Your task to perform on an android device: Clear the shopping cart on ebay.com. Search for "usb-a" on ebay.com, select the first entry, and add it to the cart. Image 0: 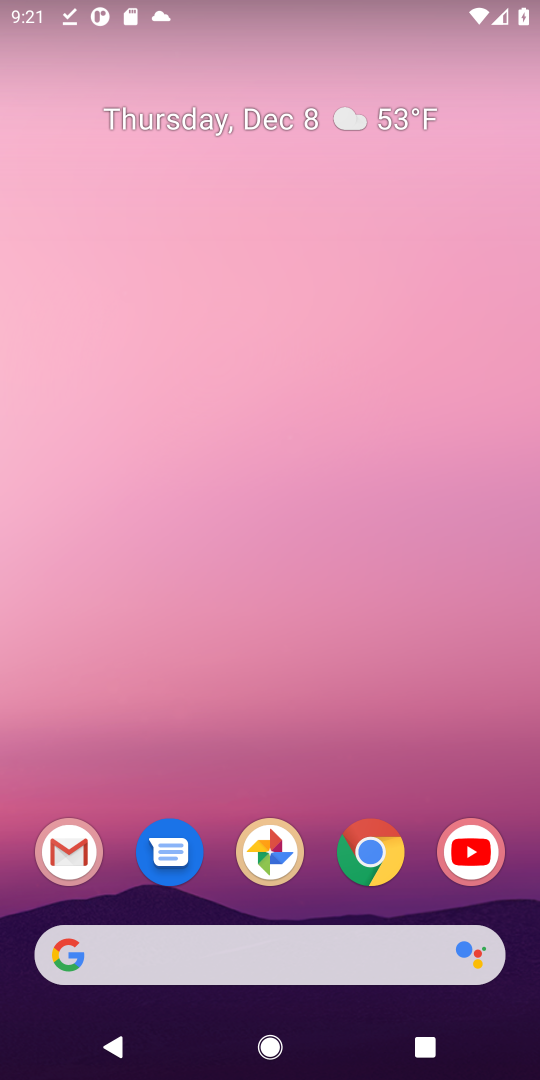
Step 0: click (269, 955)
Your task to perform on an android device: Clear the shopping cart on ebay.com. Search for "usb-a" on ebay.com, select the first entry, and add it to the cart. Image 1: 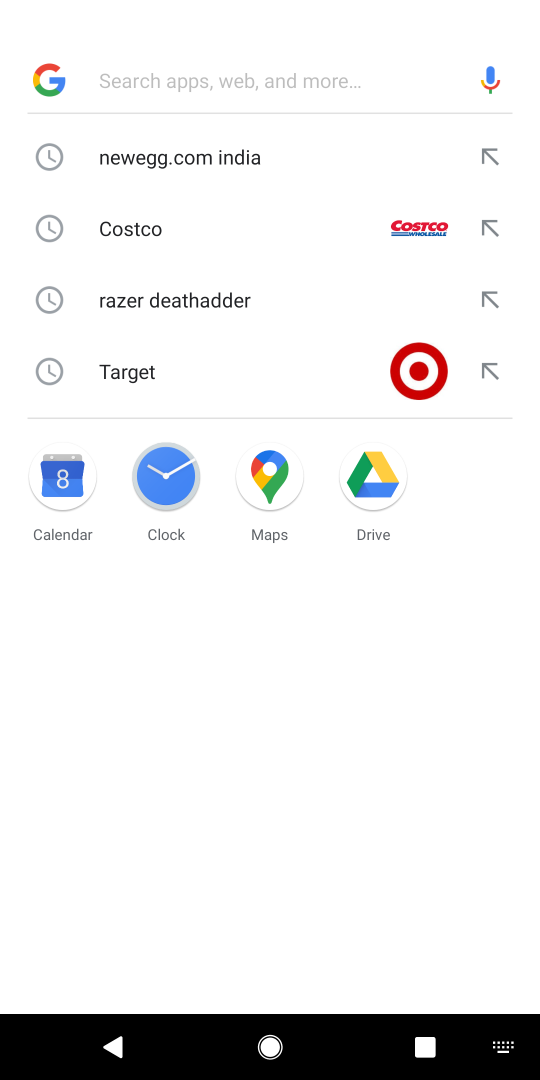
Step 1: type "ebay.com"
Your task to perform on an android device: Clear the shopping cart on ebay.com. Search for "usb-a" on ebay.com, select the first entry, and add it to the cart. Image 2: 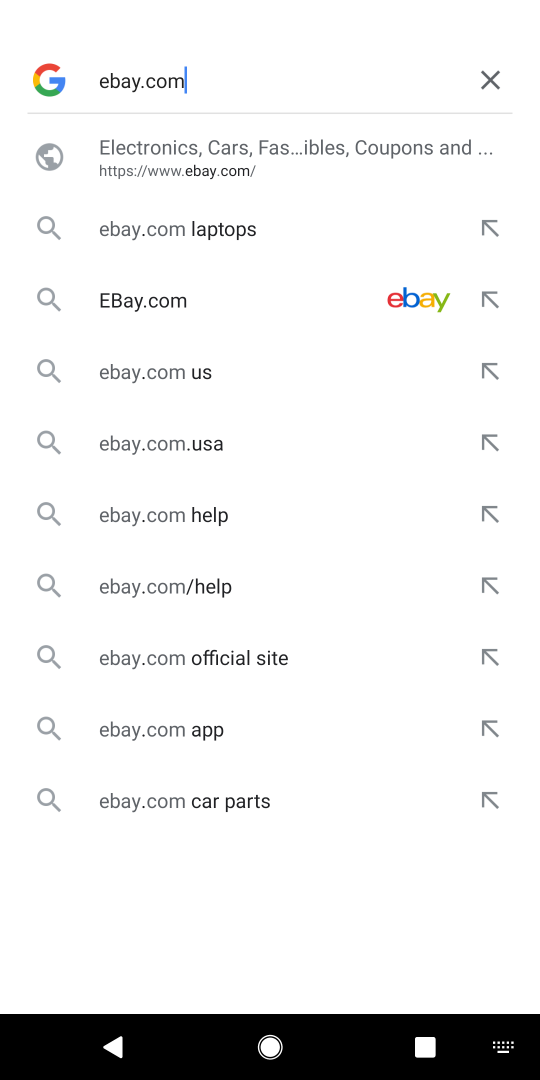
Step 2: click (277, 175)
Your task to perform on an android device: Clear the shopping cart on ebay.com. Search for "usb-a" on ebay.com, select the first entry, and add it to the cart. Image 3: 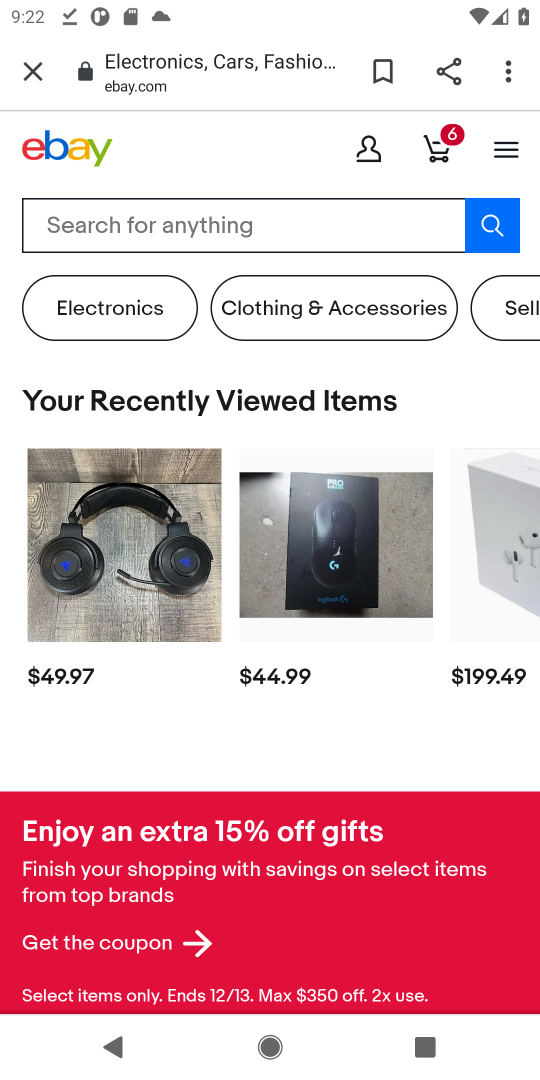
Step 3: click (220, 230)
Your task to perform on an android device: Clear the shopping cart on ebay.com. Search for "usb-a" on ebay.com, select the first entry, and add it to the cart. Image 4: 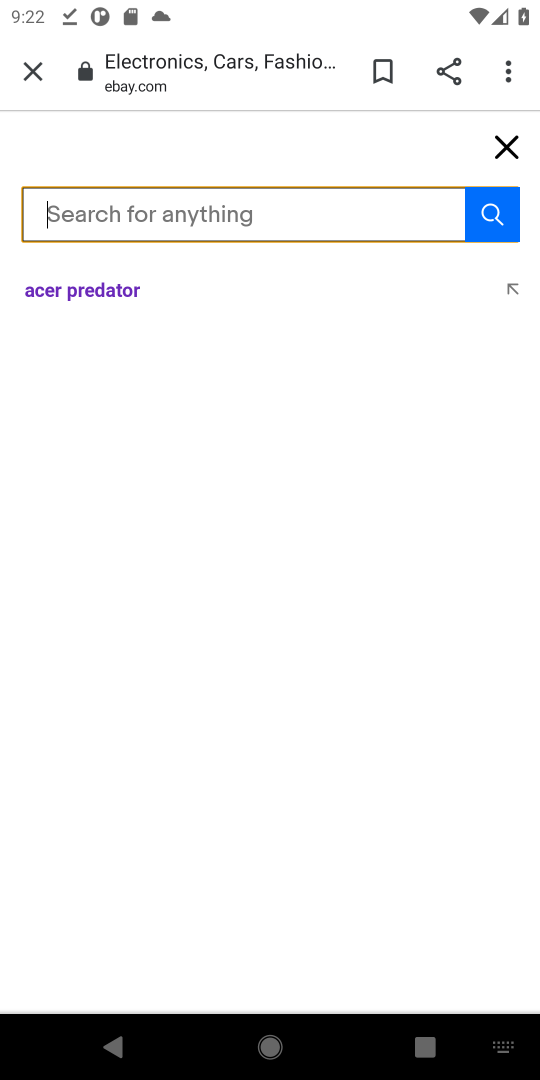
Step 4: type "usb-a"
Your task to perform on an android device: Clear the shopping cart on ebay.com. Search for "usb-a" on ebay.com, select the first entry, and add it to the cart. Image 5: 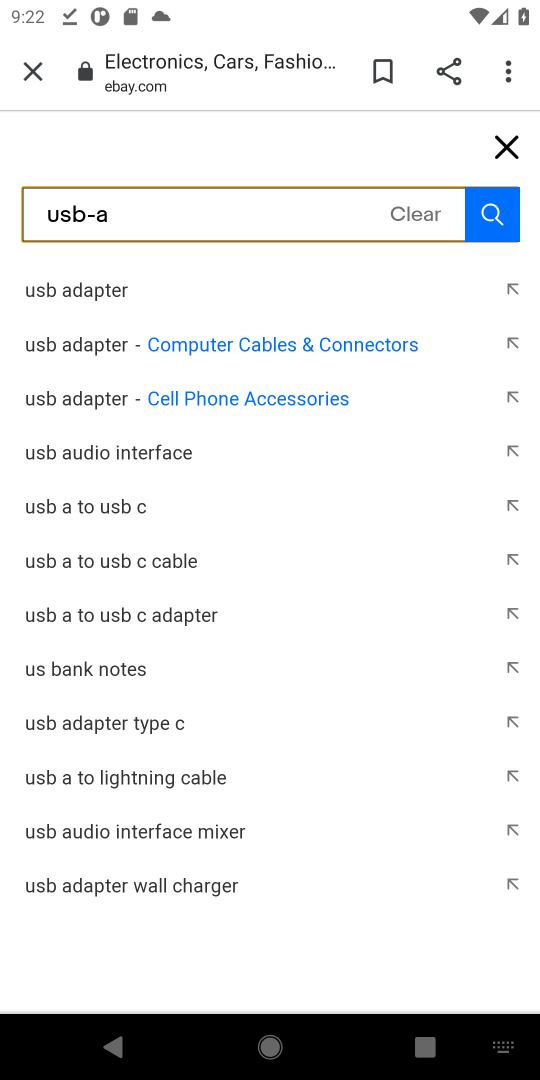
Step 5: click (487, 230)
Your task to perform on an android device: Clear the shopping cart on ebay.com. Search for "usb-a" on ebay.com, select the first entry, and add it to the cart. Image 6: 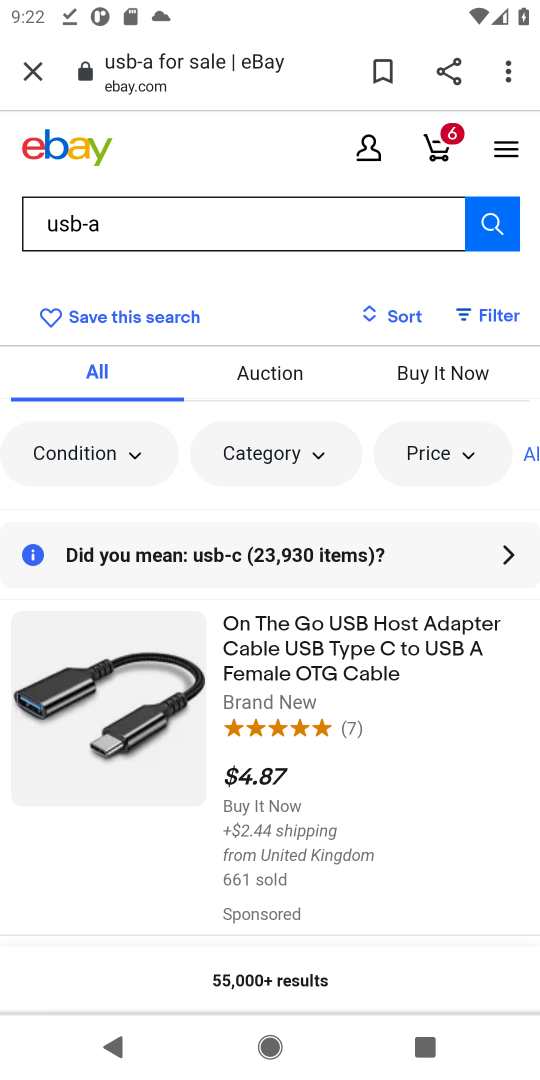
Step 6: click (272, 656)
Your task to perform on an android device: Clear the shopping cart on ebay.com. Search for "usb-a" on ebay.com, select the first entry, and add it to the cart. Image 7: 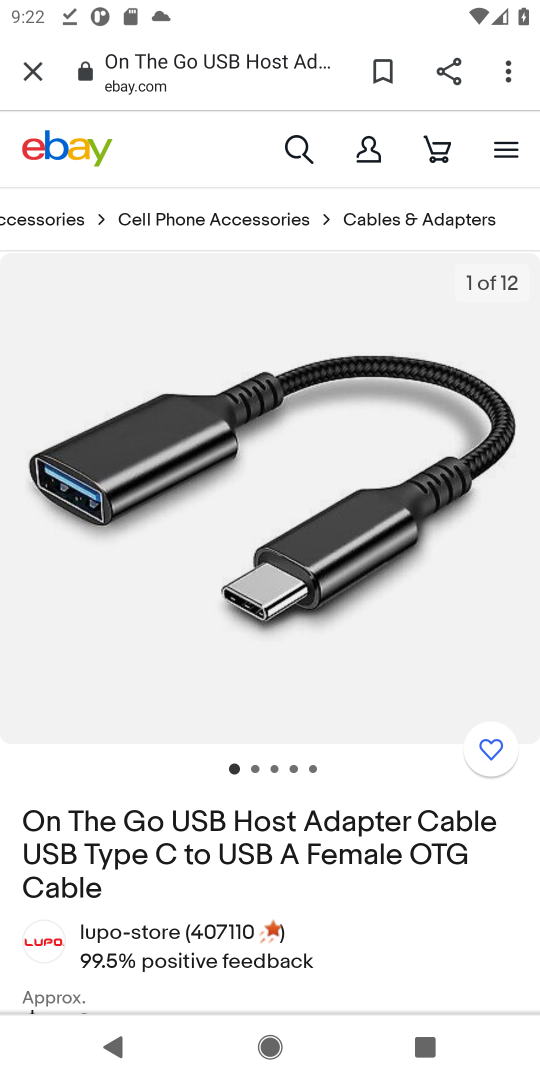
Step 7: drag from (256, 877) to (227, 304)
Your task to perform on an android device: Clear the shopping cart on ebay.com. Search for "usb-a" on ebay.com, select the first entry, and add it to the cart. Image 8: 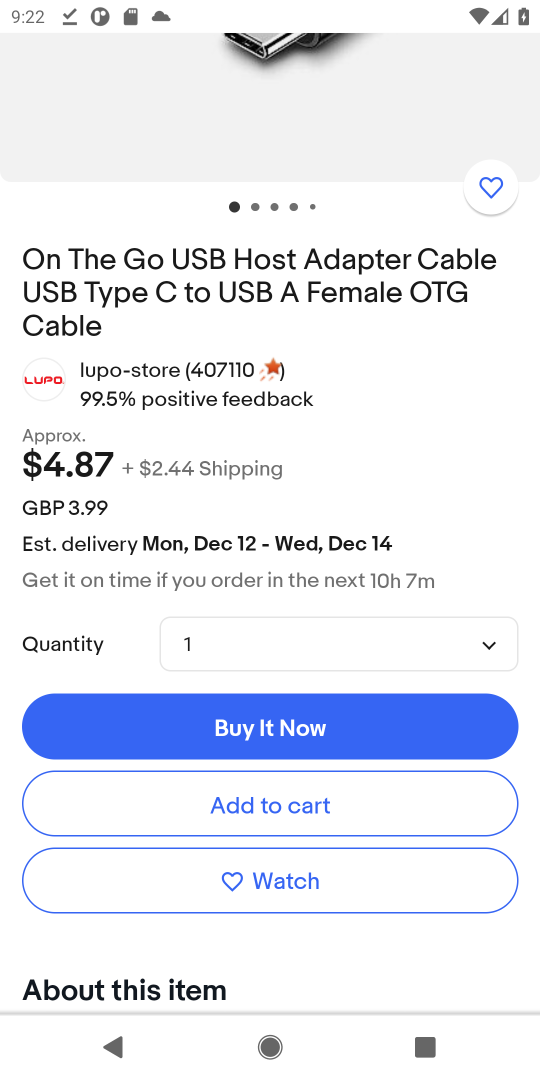
Step 8: click (271, 820)
Your task to perform on an android device: Clear the shopping cart on ebay.com. Search for "usb-a" on ebay.com, select the first entry, and add it to the cart. Image 9: 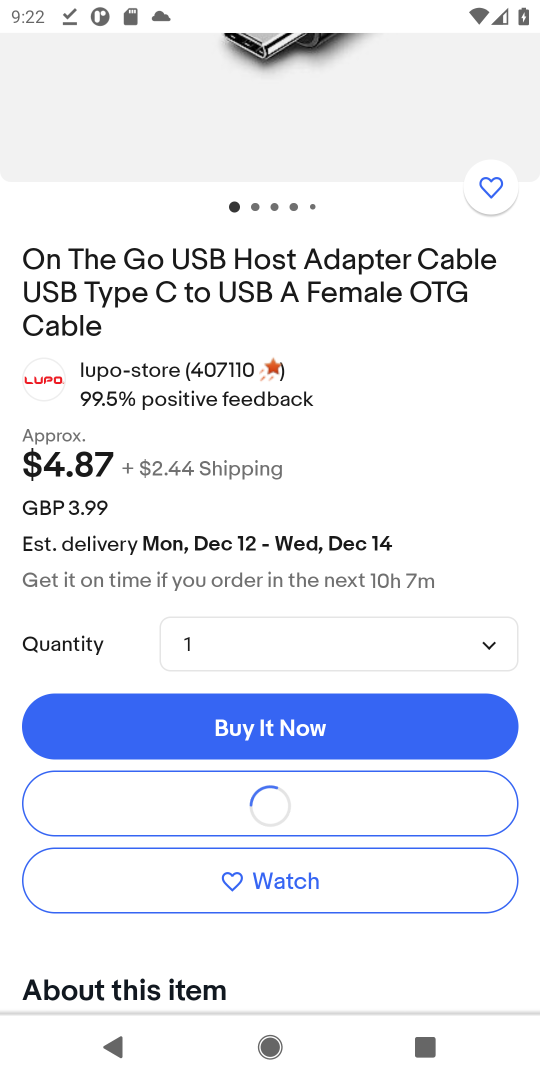
Step 9: task complete